Your task to perform on an android device: Search for pizza restaurants on Maps Image 0: 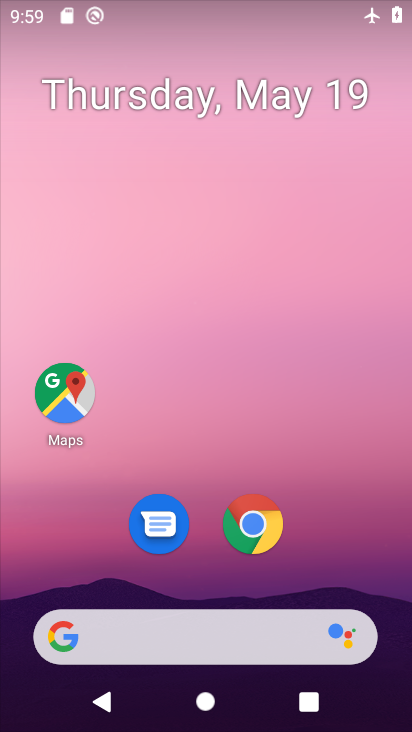
Step 0: drag from (288, 464) to (288, 44)
Your task to perform on an android device: Search for pizza restaurants on Maps Image 1: 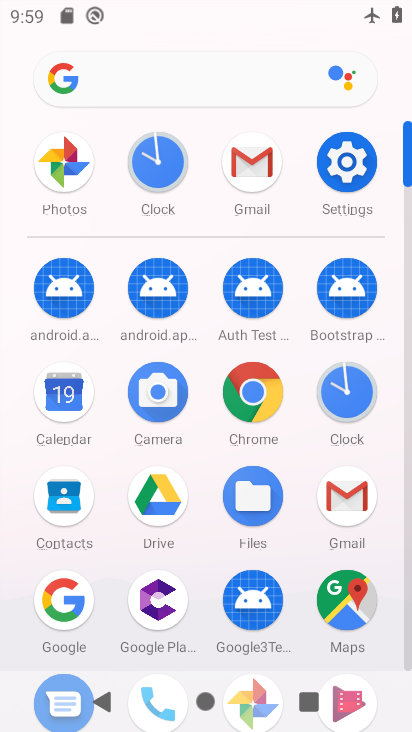
Step 1: click (336, 606)
Your task to perform on an android device: Search for pizza restaurants on Maps Image 2: 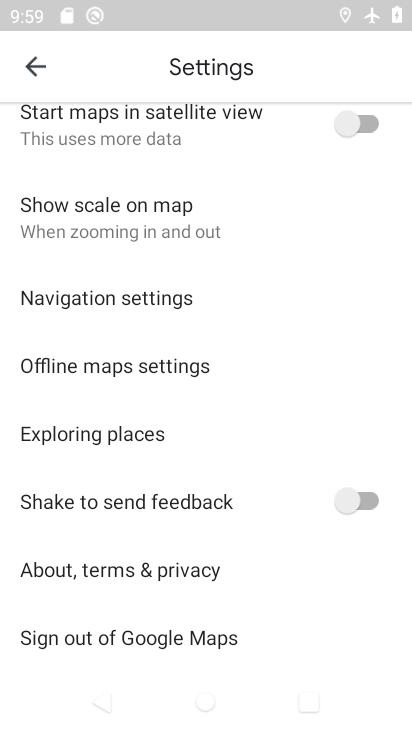
Step 2: click (38, 58)
Your task to perform on an android device: Search for pizza restaurants on Maps Image 3: 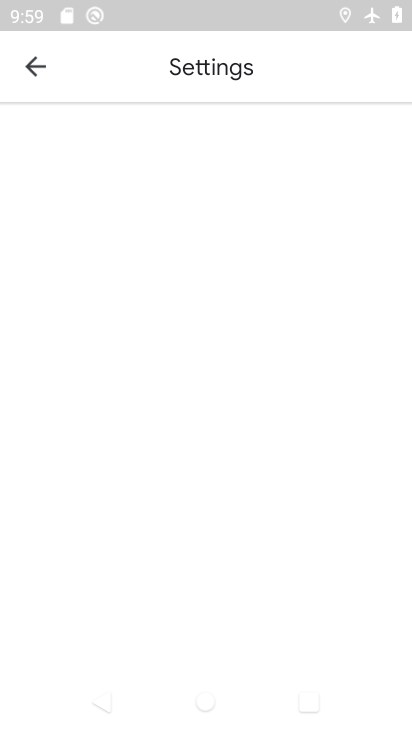
Step 3: click (38, 59)
Your task to perform on an android device: Search for pizza restaurants on Maps Image 4: 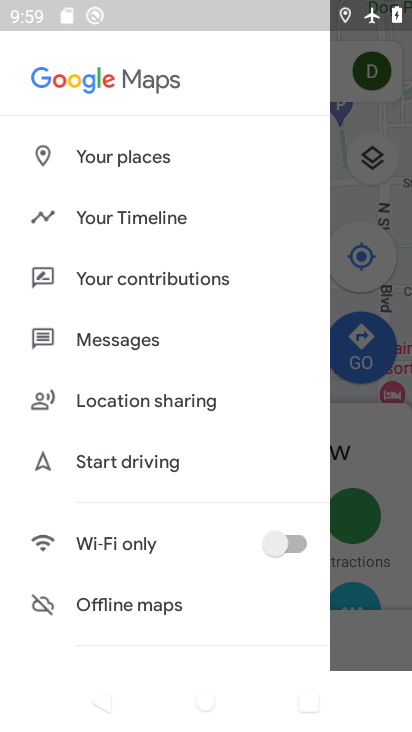
Step 4: click (387, 173)
Your task to perform on an android device: Search for pizza restaurants on Maps Image 5: 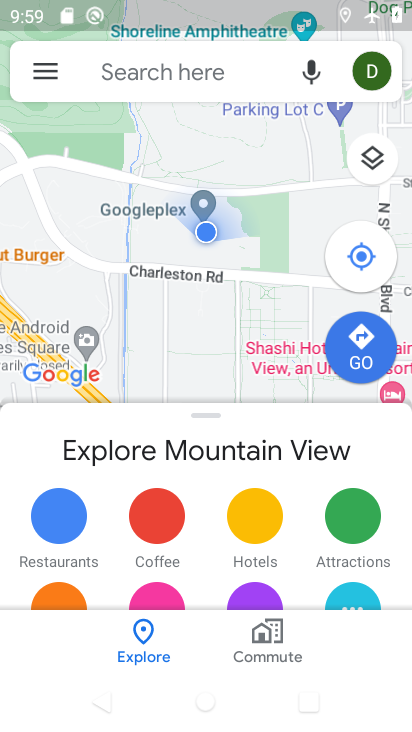
Step 5: click (221, 60)
Your task to perform on an android device: Search for pizza restaurants on Maps Image 6: 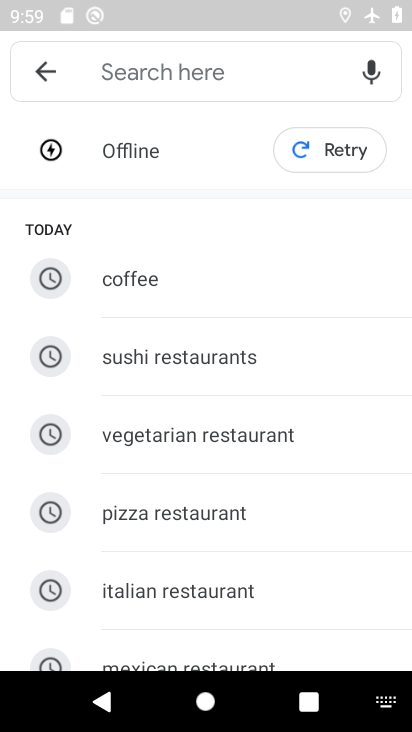
Step 6: click (191, 514)
Your task to perform on an android device: Search for pizza restaurants on Maps Image 7: 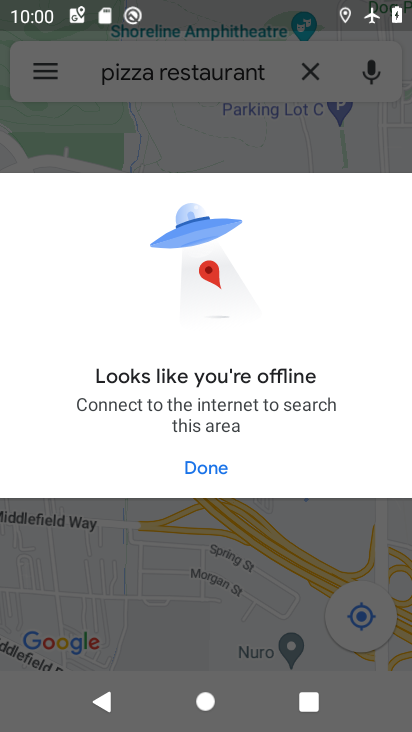
Step 7: task complete